Your task to perform on an android device: open a bookmark in the chrome app Image 0: 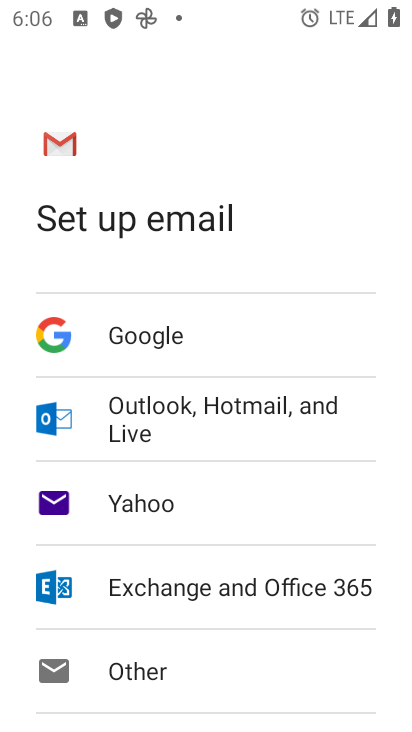
Step 0: press home button
Your task to perform on an android device: open a bookmark in the chrome app Image 1: 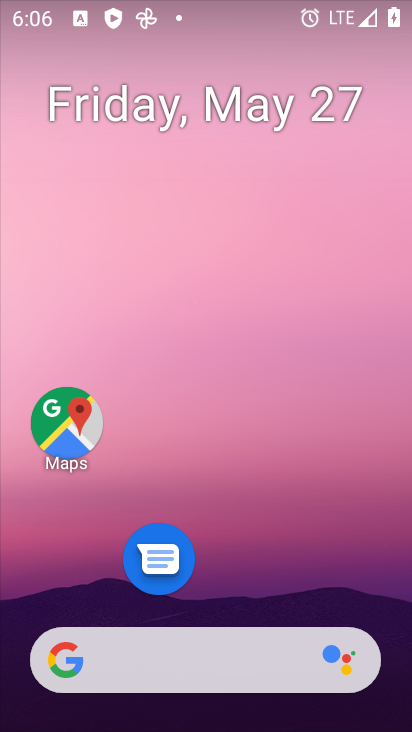
Step 1: drag from (271, 669) to (297, 185)
Your task to perform on an android device: open a bookmark in the chrome app Image 2: 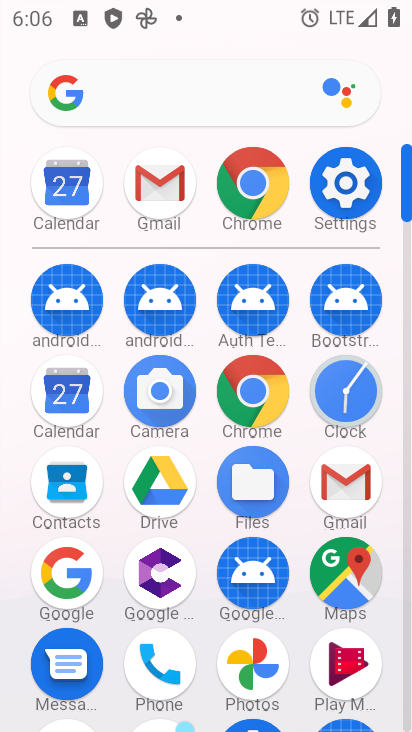
Step 2: click (260, 387)
Your task to perform on an android device: open a bookmark in the chrome app Image 3: 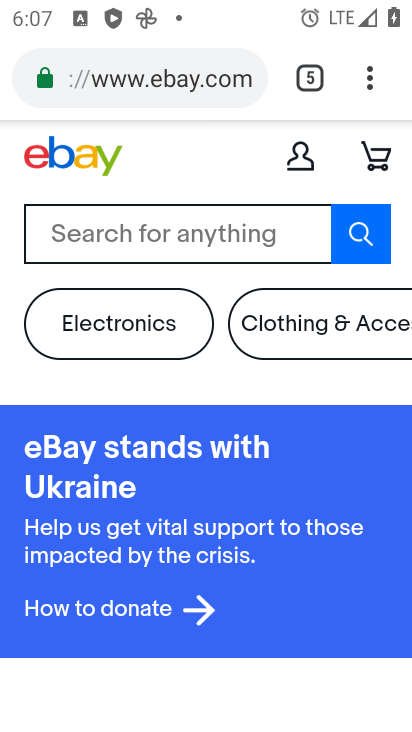
Step 3: task complete